Your task to perform on an android device: Go to ESPN.com Image 0: 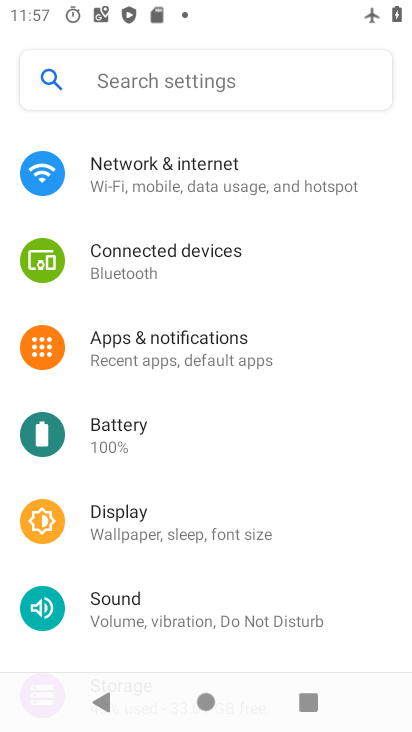
Step 0: press home button
Your task to perform on an android device: Go to ESPN.com Image 1: 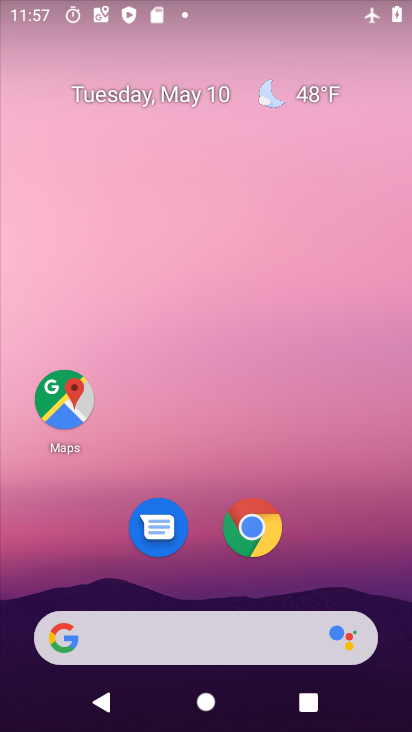
Step 1: click (252, 533)
Your task to perform on an android device: Go to ESPN.com Image 2: 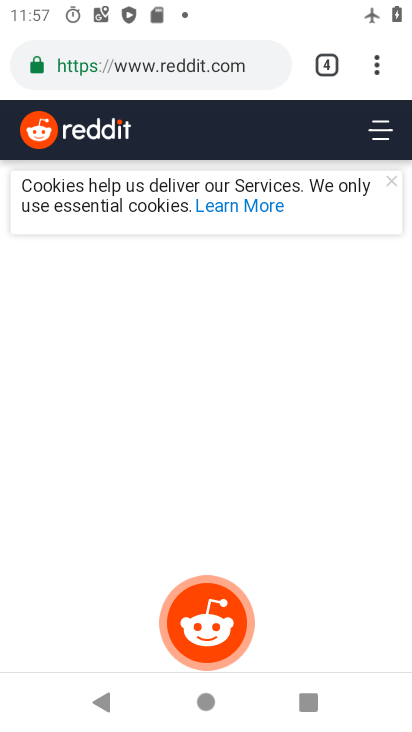
Step 2: click (377, 68)
Your task to perform on an android device: Go to ESPN.com Image 3: 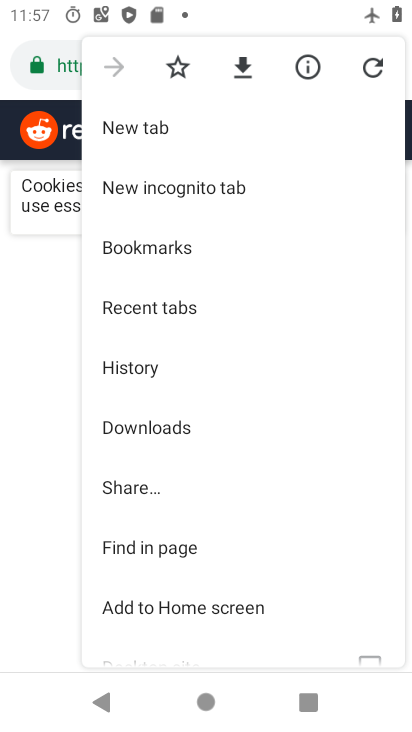
Step 3: click (118, 130)
Your task to perform on an android device: Go to ESPN.com Image 4: 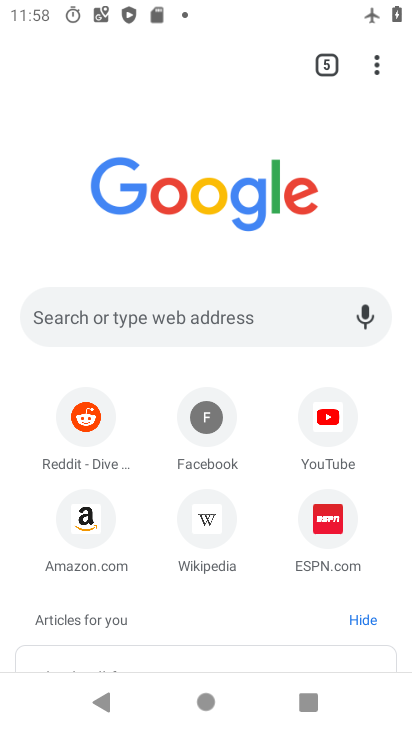
Step 4: click (207, 320)
Your task to perform on an android device: Go to ESPN.com Image 5: 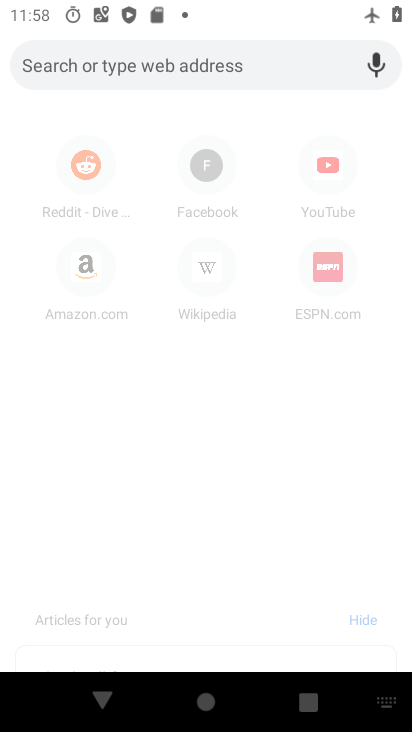
Step 5: type "ESPN.com"
Your task to perform on an android device: Go to ESPN.com Image 6: 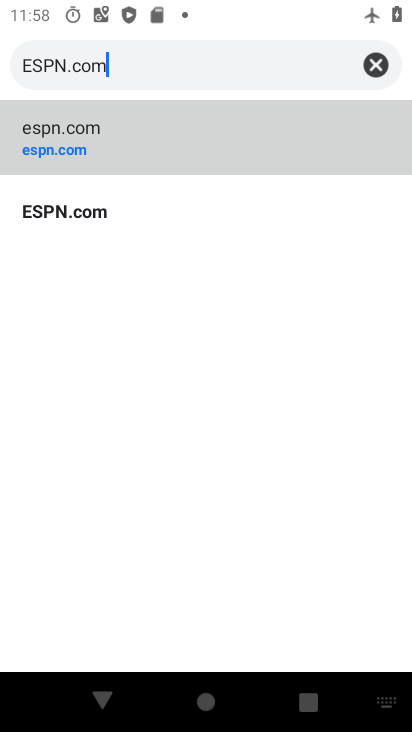
Step 6: click (74, 134)
Your task to perform on an android device: Go to ESPN.com Image 7: 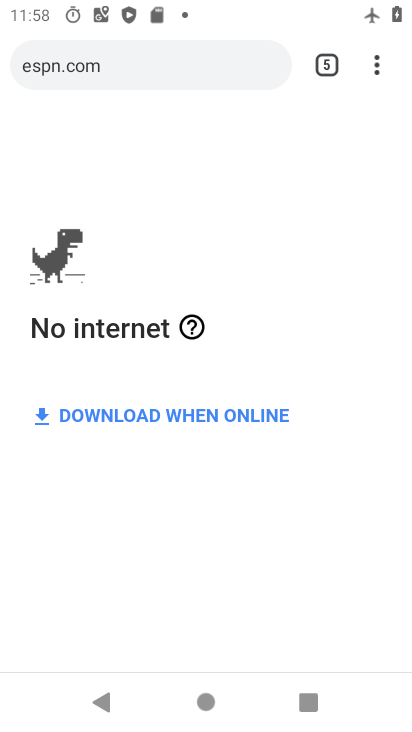
Step 7: task complete